Your task to perform on an android device: What's the weather? Image 0: 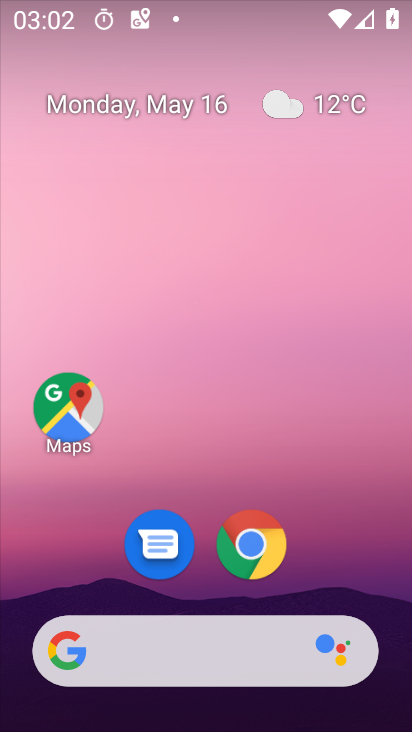
Step 0: click (288, 101)
Your task to perform on an android device: What's the weather? Image 1: 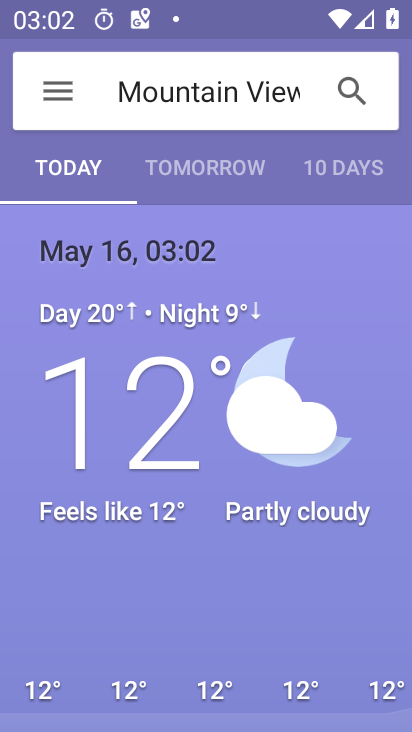
Step 1: task complete